Your task to perform on an android device: Show the shopping cart on bestbuy.com. Add razer blackwidow to the cart on bestbuy.com Image 0: 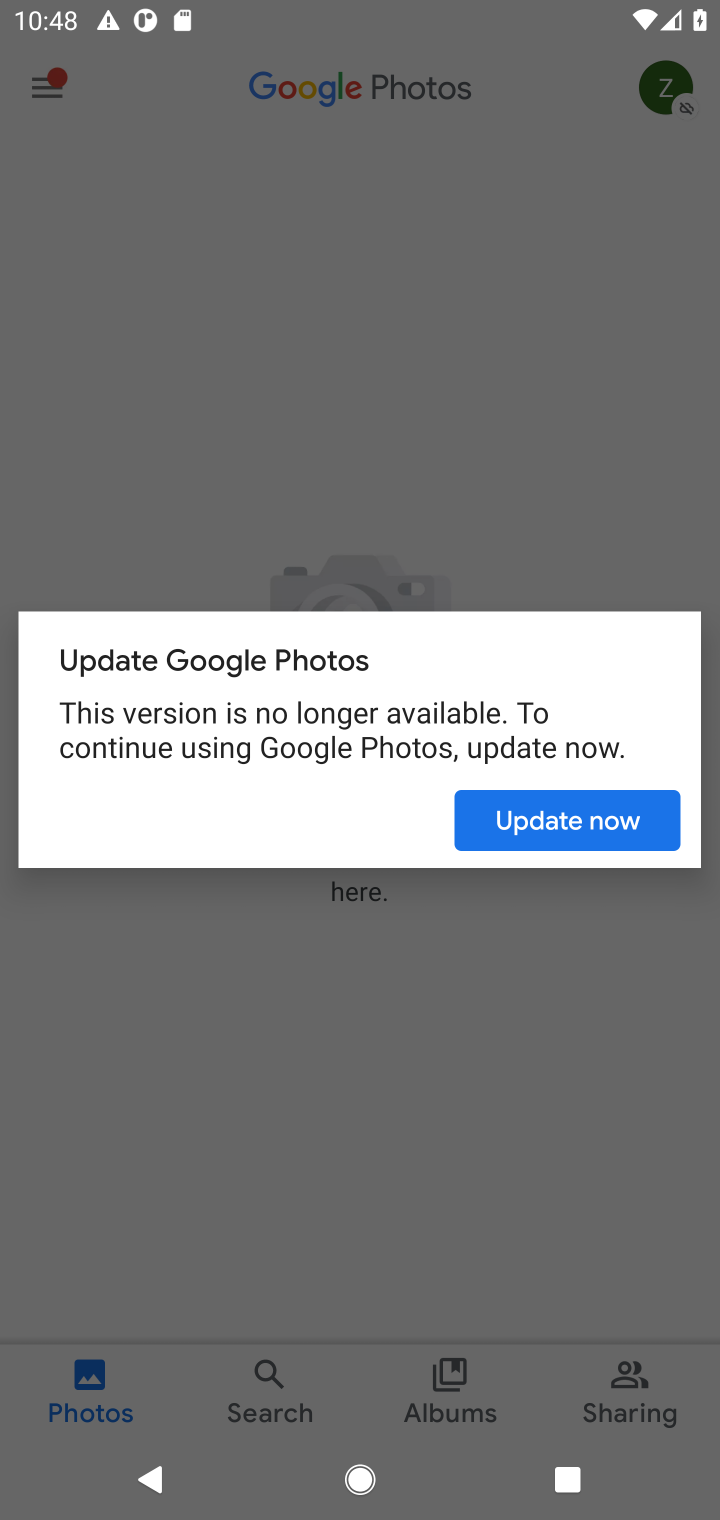
Step 0: press home button
Your task to perform on an android device: Show the shopping cart on bestbuy.com. Add razer blackwidow to the cart on bestbuy.com Image 1: 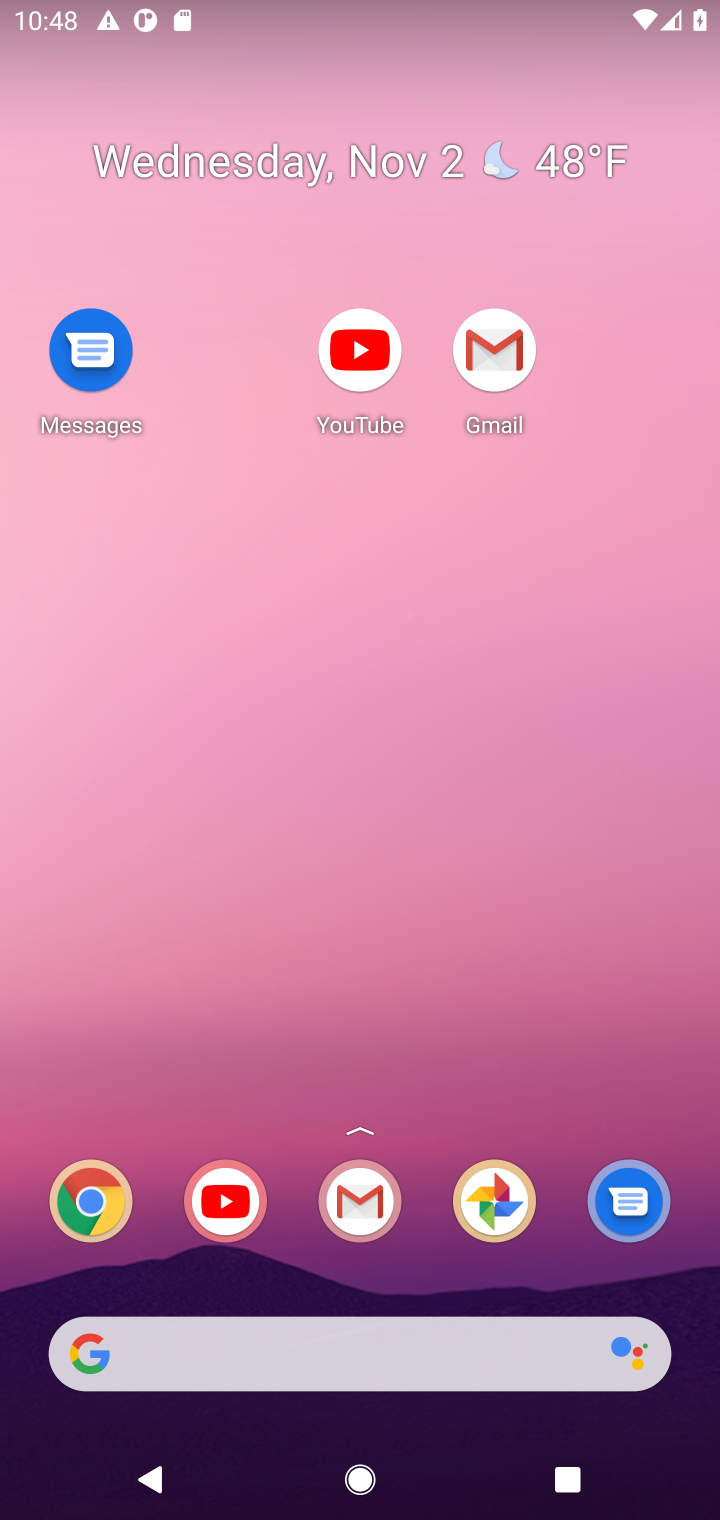
Step 1: drag from (417, 1268) to (355, 187)
Your task to perform on an android device: Show the shopping cart on bestbuy.com. Add razer blackwidow to the cart on bestbuy.com Image 2: 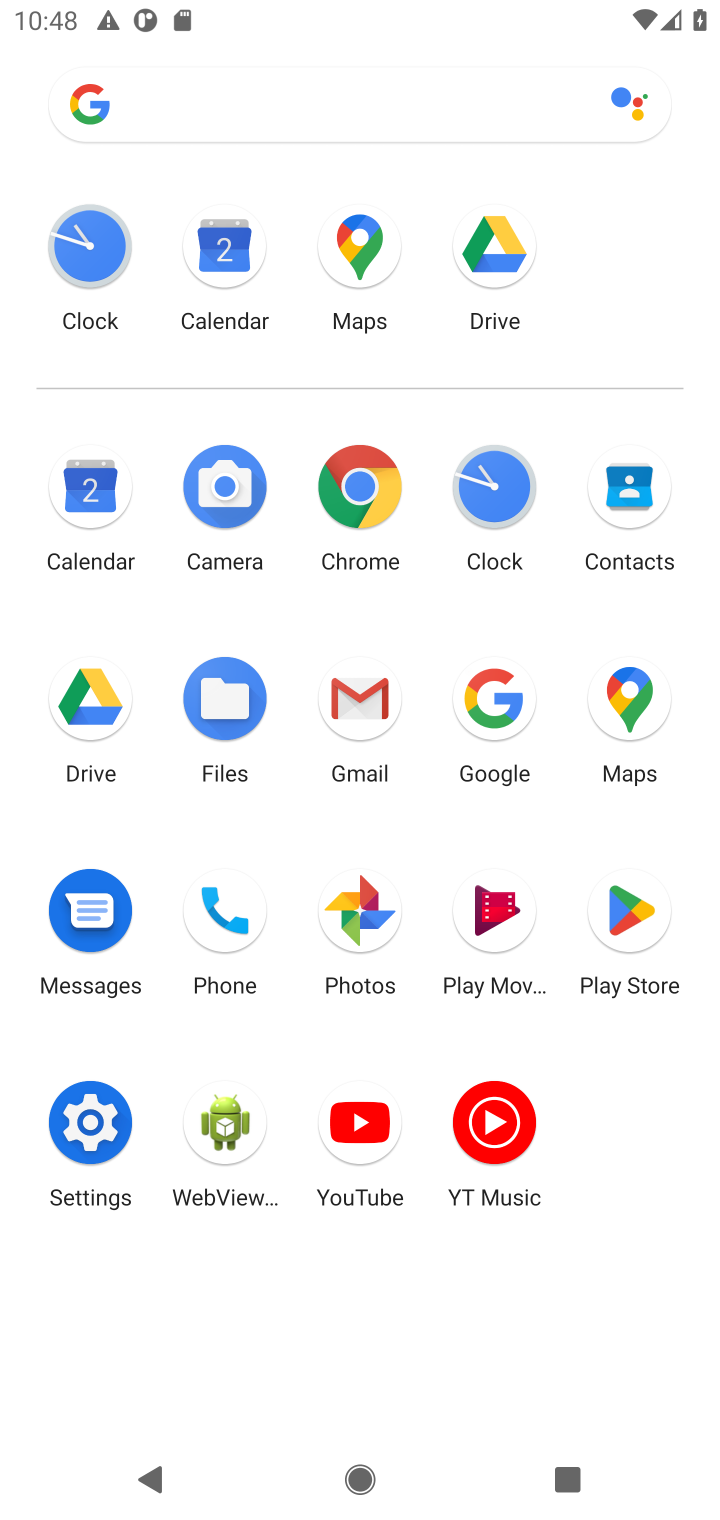
Step 2: click (359, 480)
Your task to perform on an android device: Show the shopping cart on bestbuy.com. Add razer blackwidow to the cart on bestbuy.com Image 3: 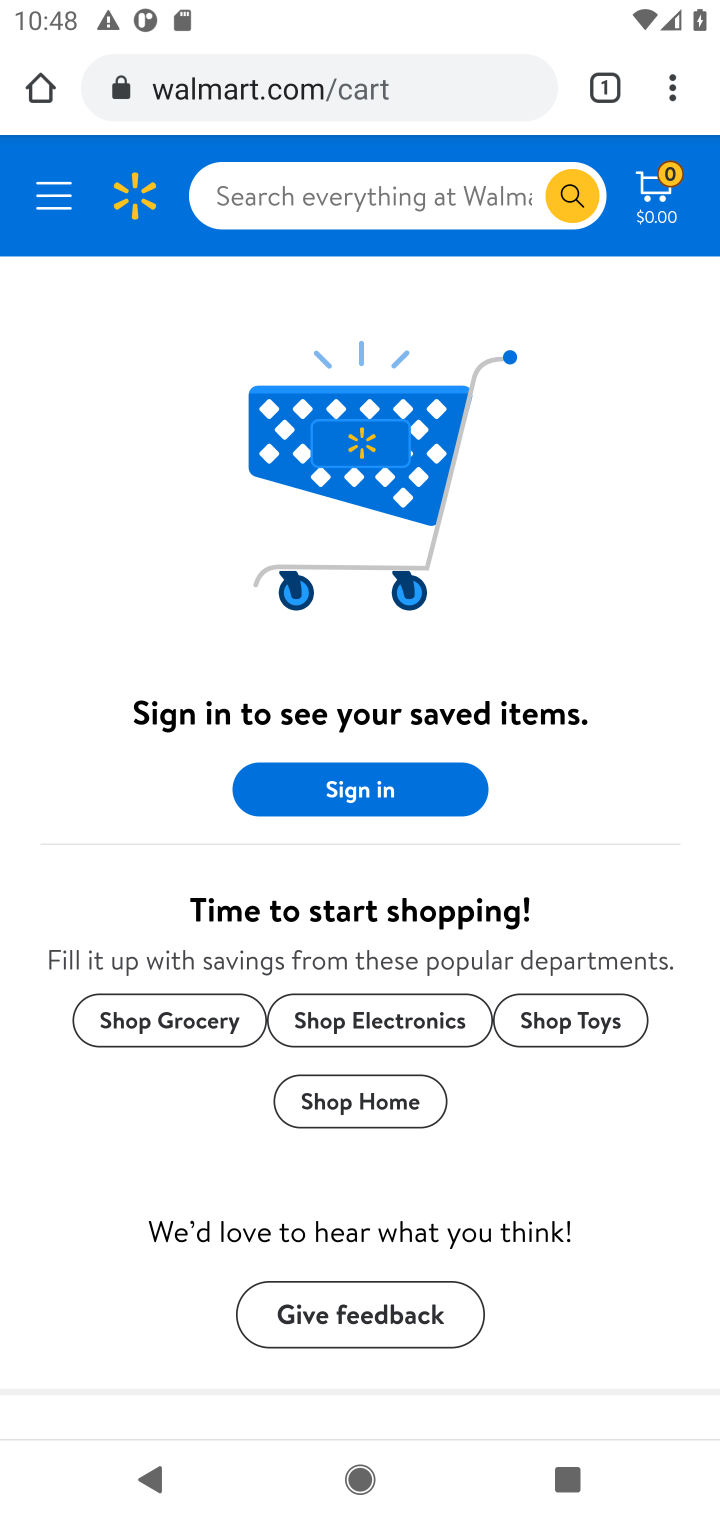
Step 3: click (380, 101)
Your task to perform on an android device: Show the shopping cart on bestbuy.com. Add razer blackwidow to the cart on bestbuy.com Image 4: 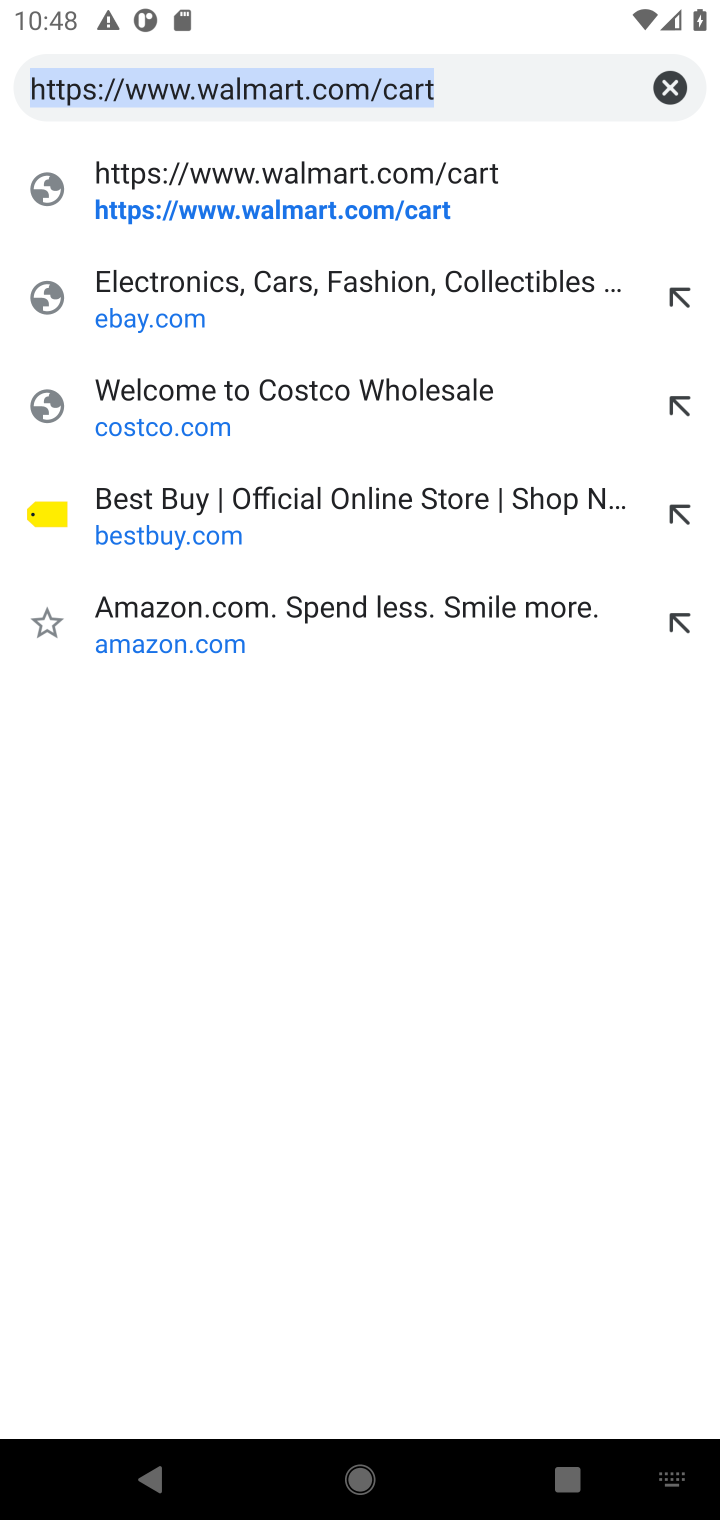
Step 4: type "bestbuy.com"
Your task to perform on an android device: Show the shopping cart on bestbuy.com. Add razer blackwidow to the cart on bestbuy.com Image 5: 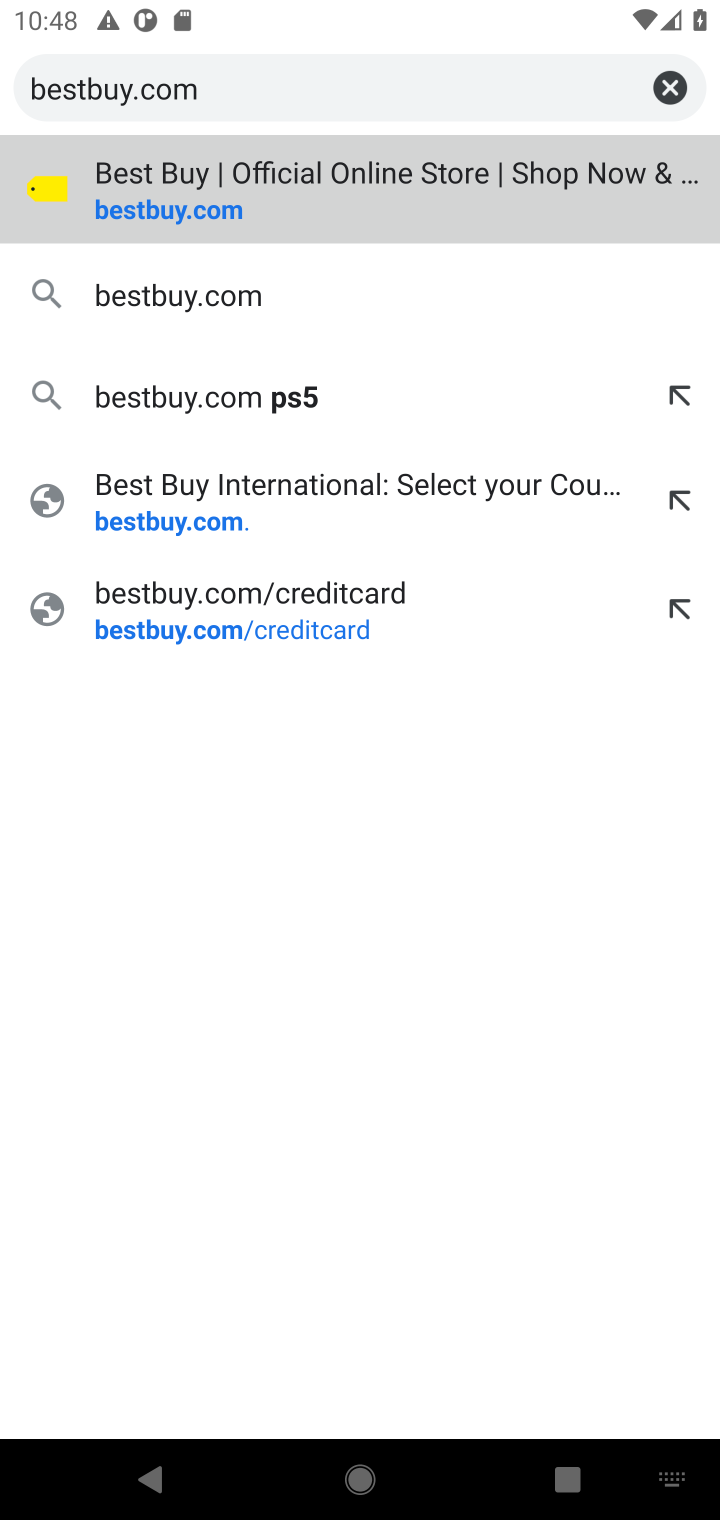
Step 5: press enter
Your task to perform on an android device: Show the shopping cart on bestbuy.com. Add razer blackwidow to the cart on bestbuy.com Image 6: 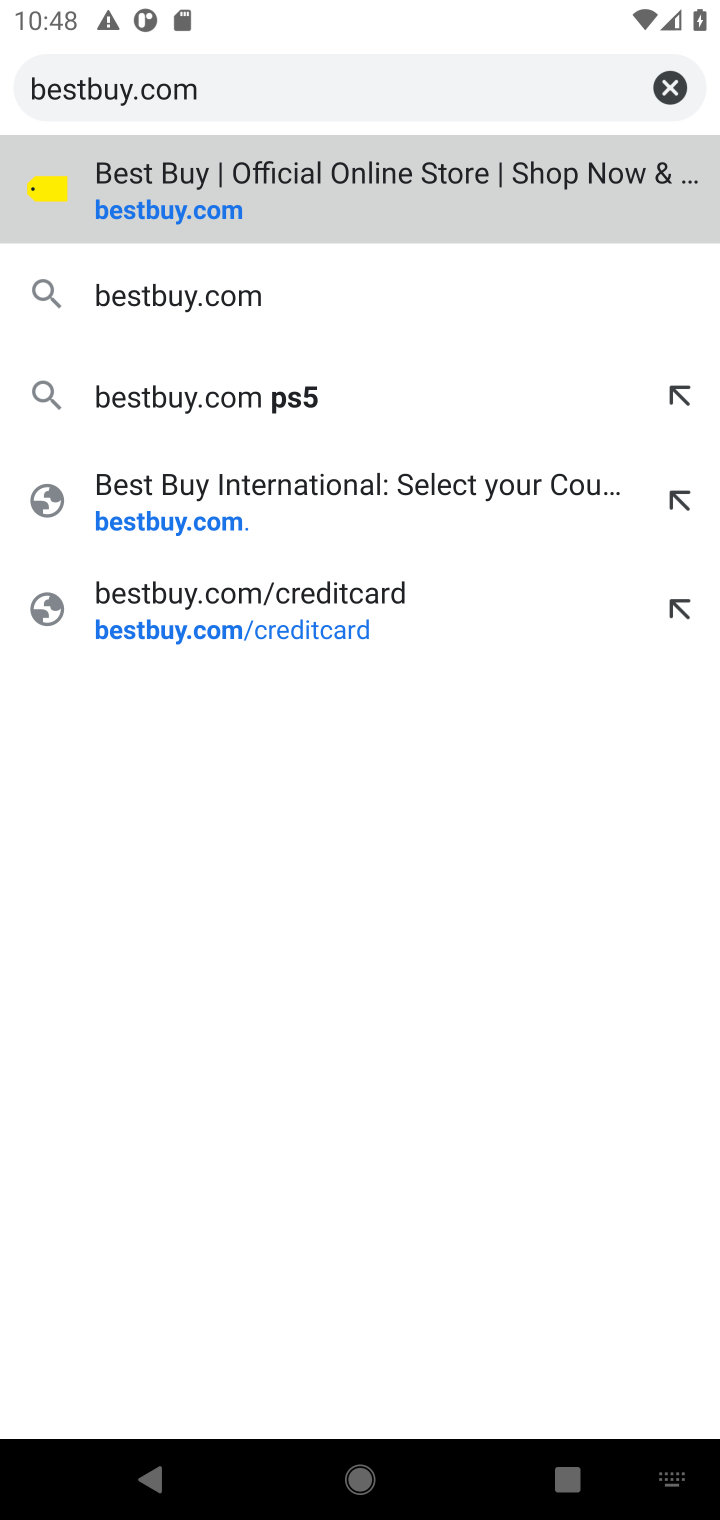
Step 6: type "xxxzc"
Your task to perform on an android device: Show the shopping cart on bestbuy.com. Add razer blackwidow to the cart on bestbuy.com Image 7: 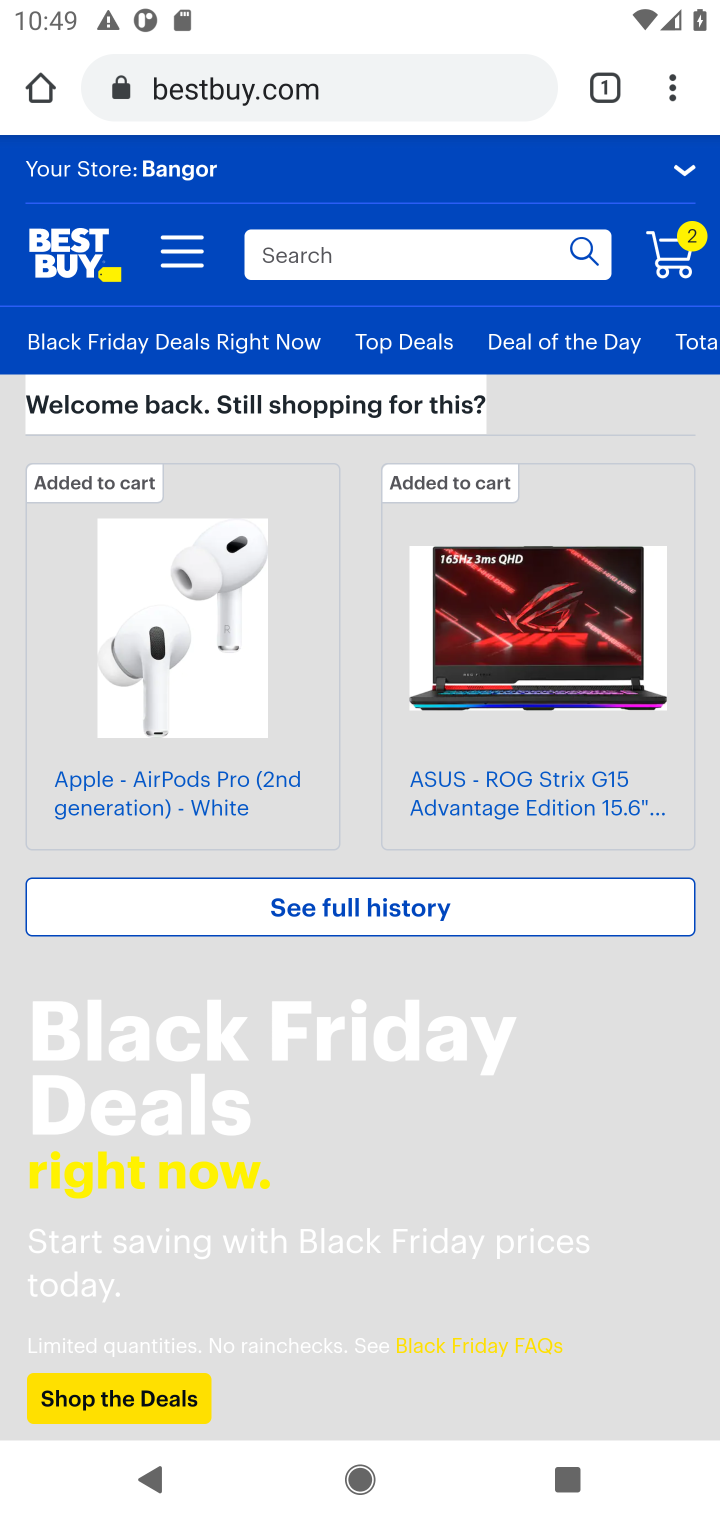
Step 7: click (680, 243)
Your task to perform on an android device: Show the shopping cart on bestbuy.com. Add razer blackwidow to the cart on bestbuy.com Image 8: 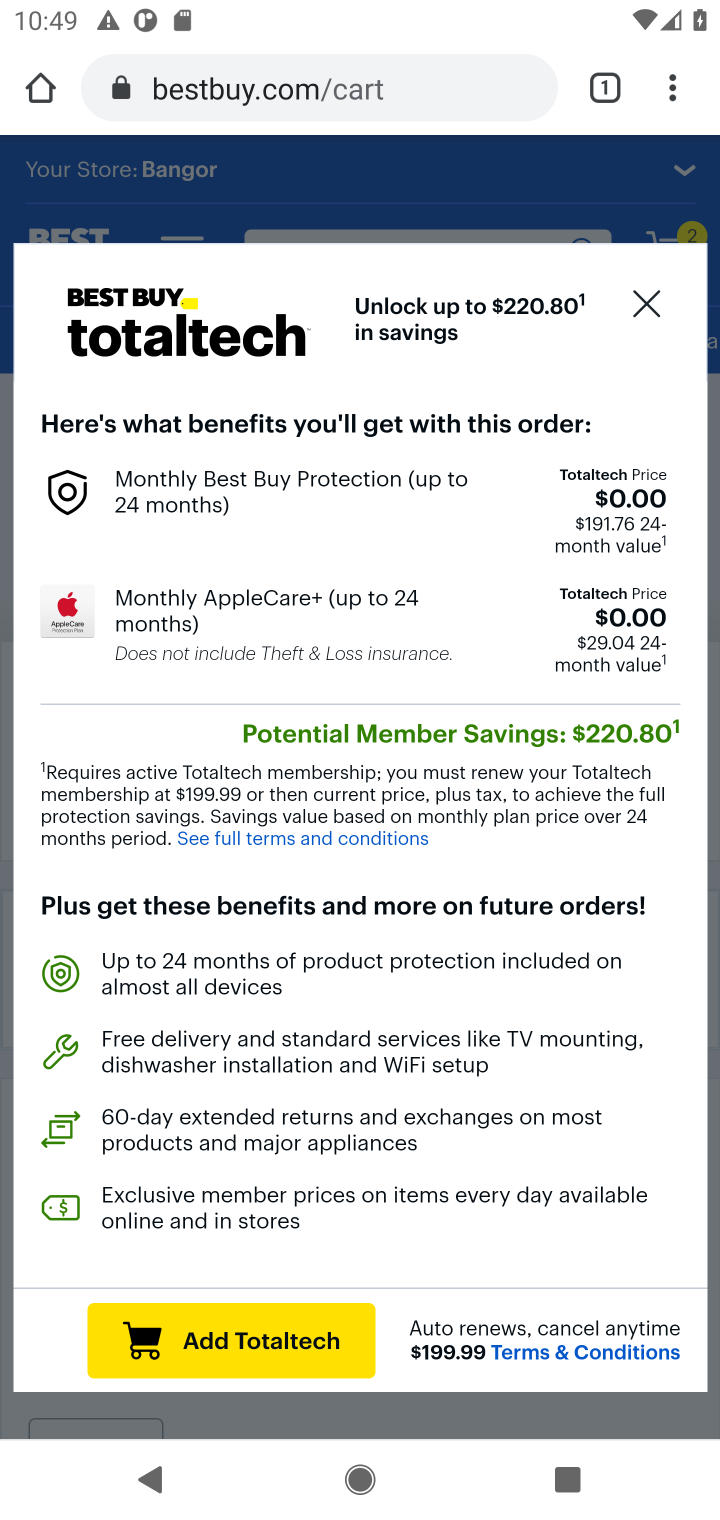
Step 8: click (647, 300)
Your task to perform on an android device: Show the shopping cart on bestbuy.com. Add razer blackwidow to the cart on bestbuy.com Image 9: 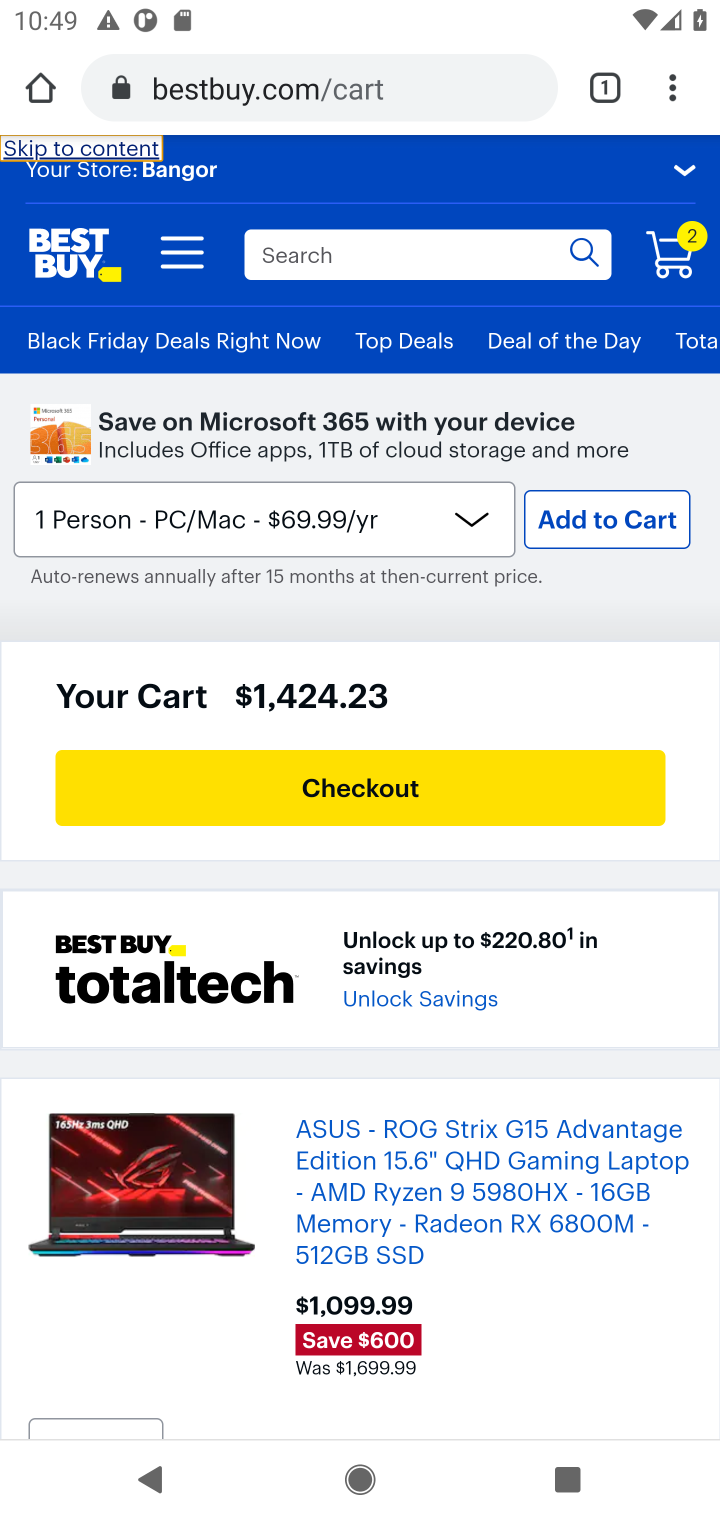
Step 9: click (423, 261)
Your task to perform on an android device: Show the shopping cart on bestbuy.com. Add razer blackwidow to the cart on bestbuy.com Image 10: 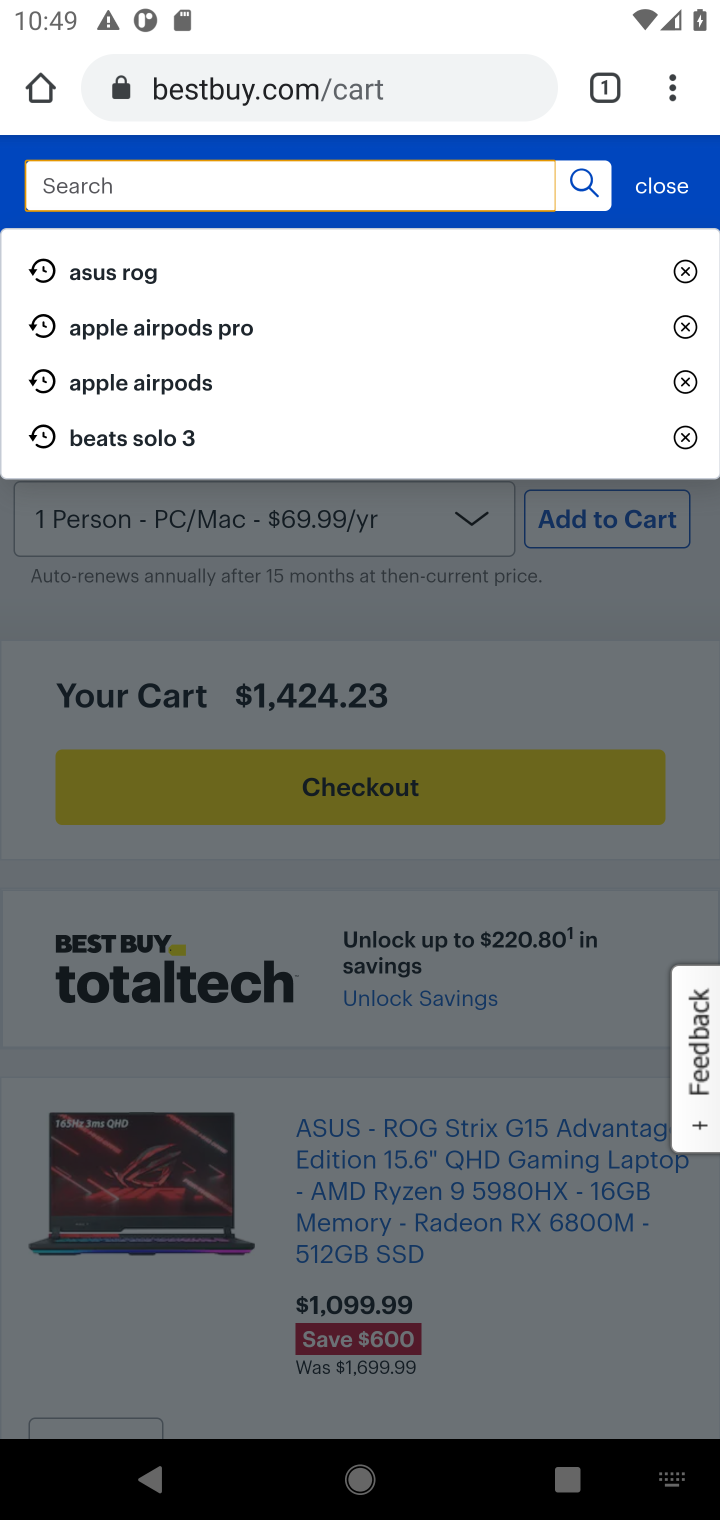
Step 10: type "razer blackwidow"
Your task to perform on an android device: Show the shopping cart on bestbuy.com. Add razer blackwidow to the cart on bestbuy.com Image 11: 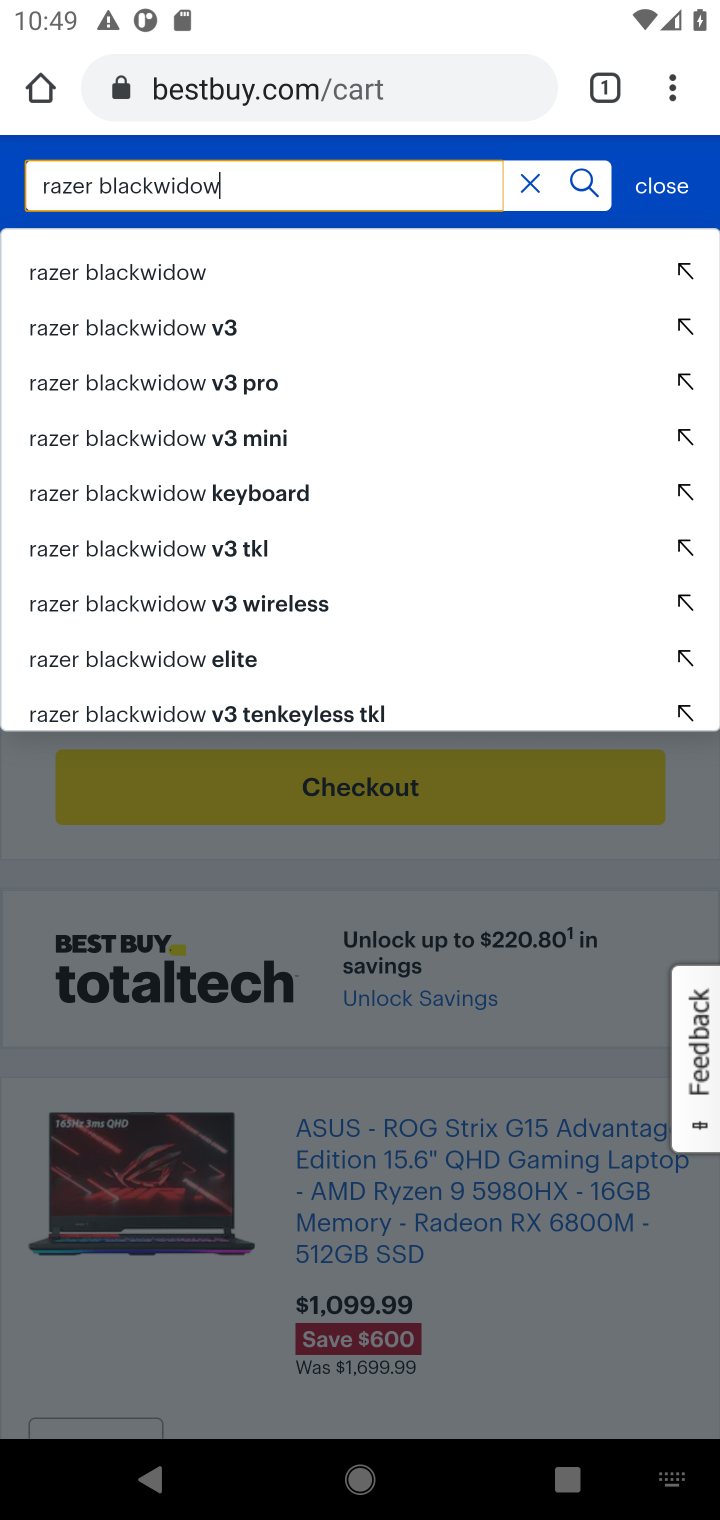
Step 11: press enter
Your task to perform on an android device: Show the shopping cart on bestbuy.com. Add razer blackwidow to the cart on bestbuy.com Image 12: 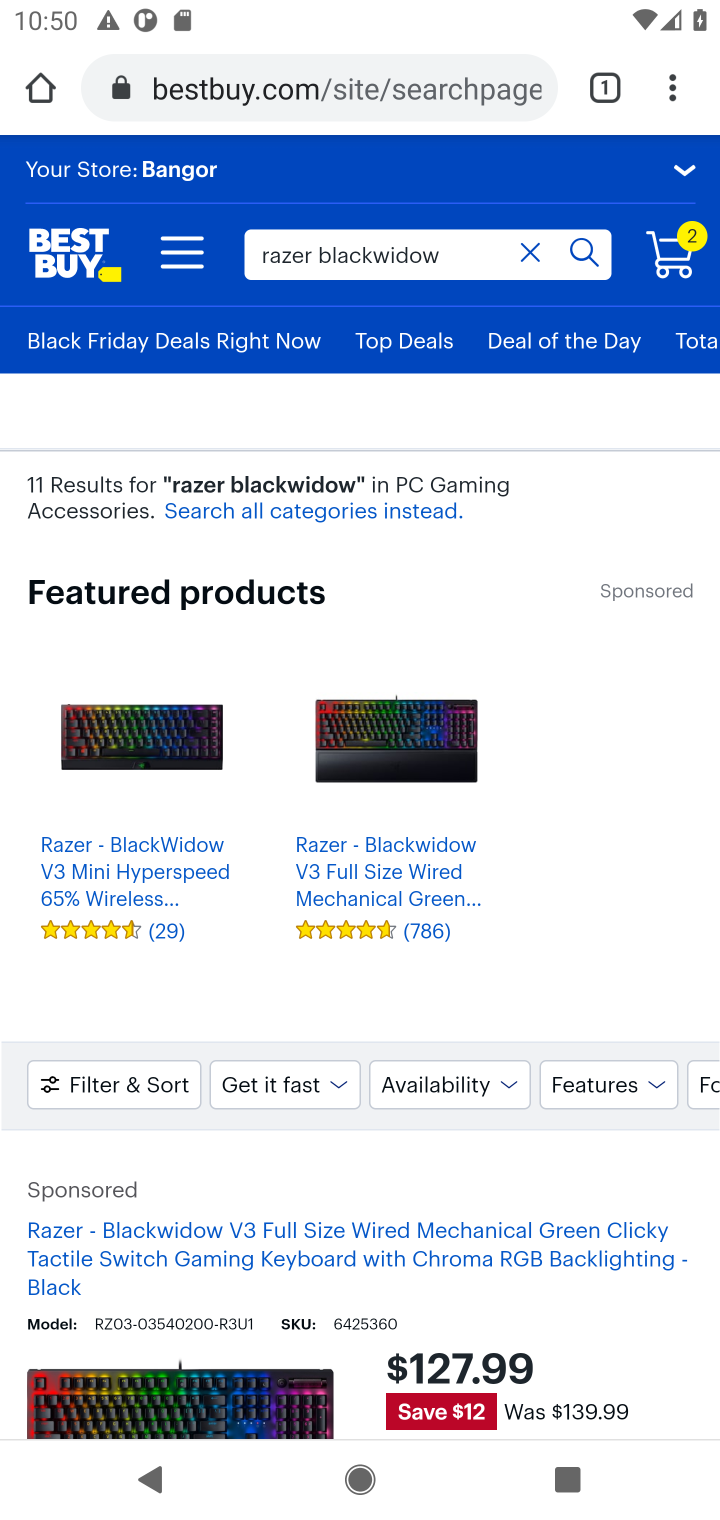
Step 12: drag from (462, 1217) to (504, 378)
Your task to perform on an android device: Show the shopping cart on bestbuy.com. Add razer blackwidow to the cart on bestbuy.com Image 13: 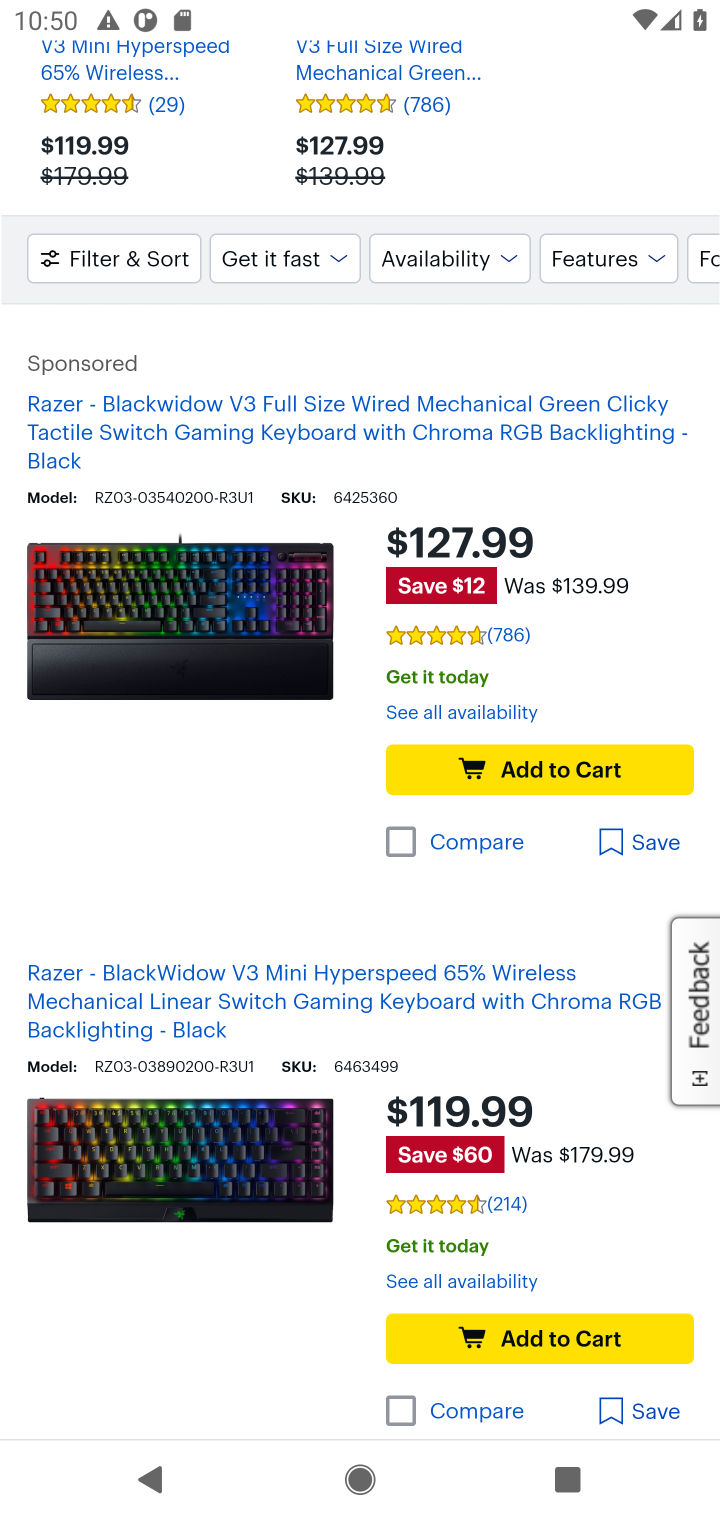
Step 13: click (164, 988)
Your task to perform on an android device: Show the shopping cart on bestbuy.com. Add razer blackwidow to the cart on bestbuy.com Image 14: 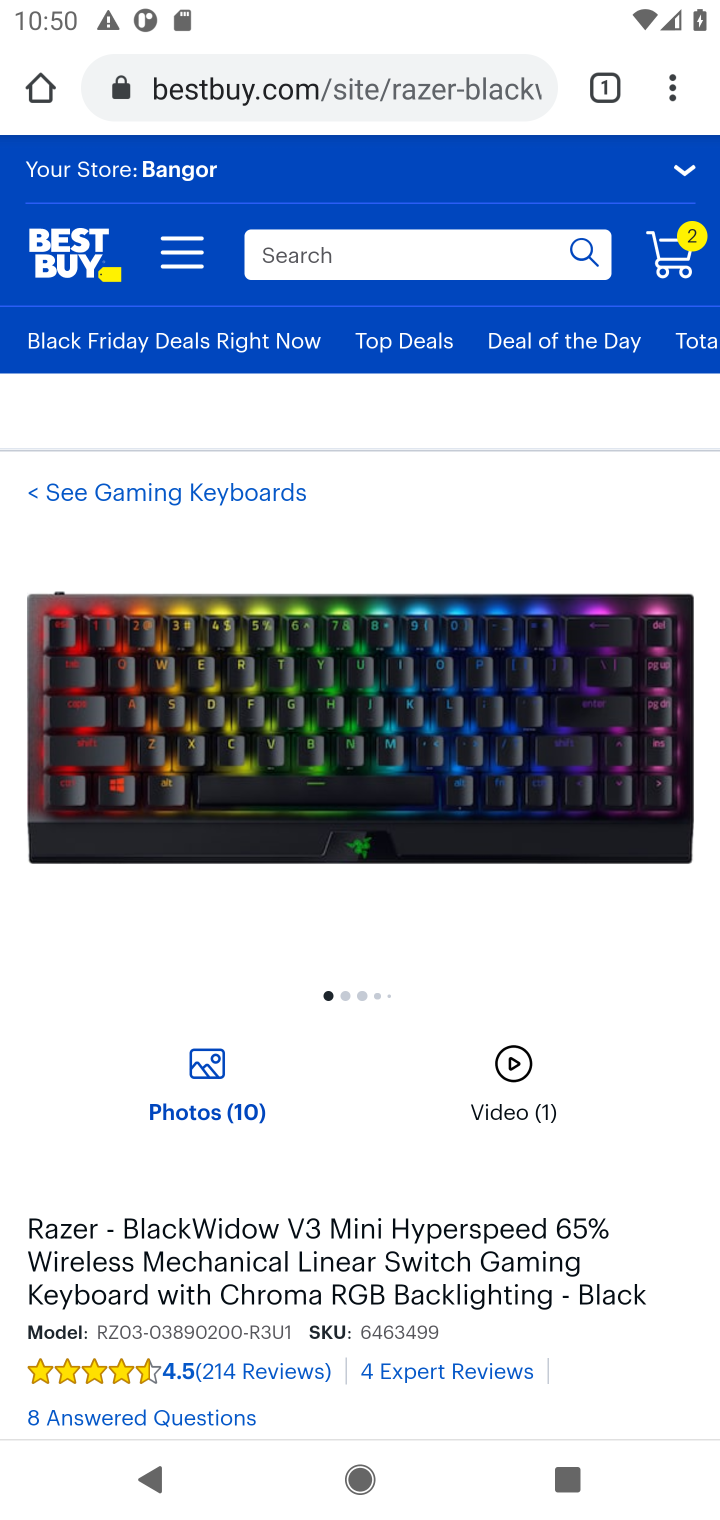
Step 14: drag from (333, 1338) to (297, 703)
Your task to perform on an android device: Show the shopping cart on bestbuy.com. Add razer blackwidow to the cart on bestbuy.com Image 15: 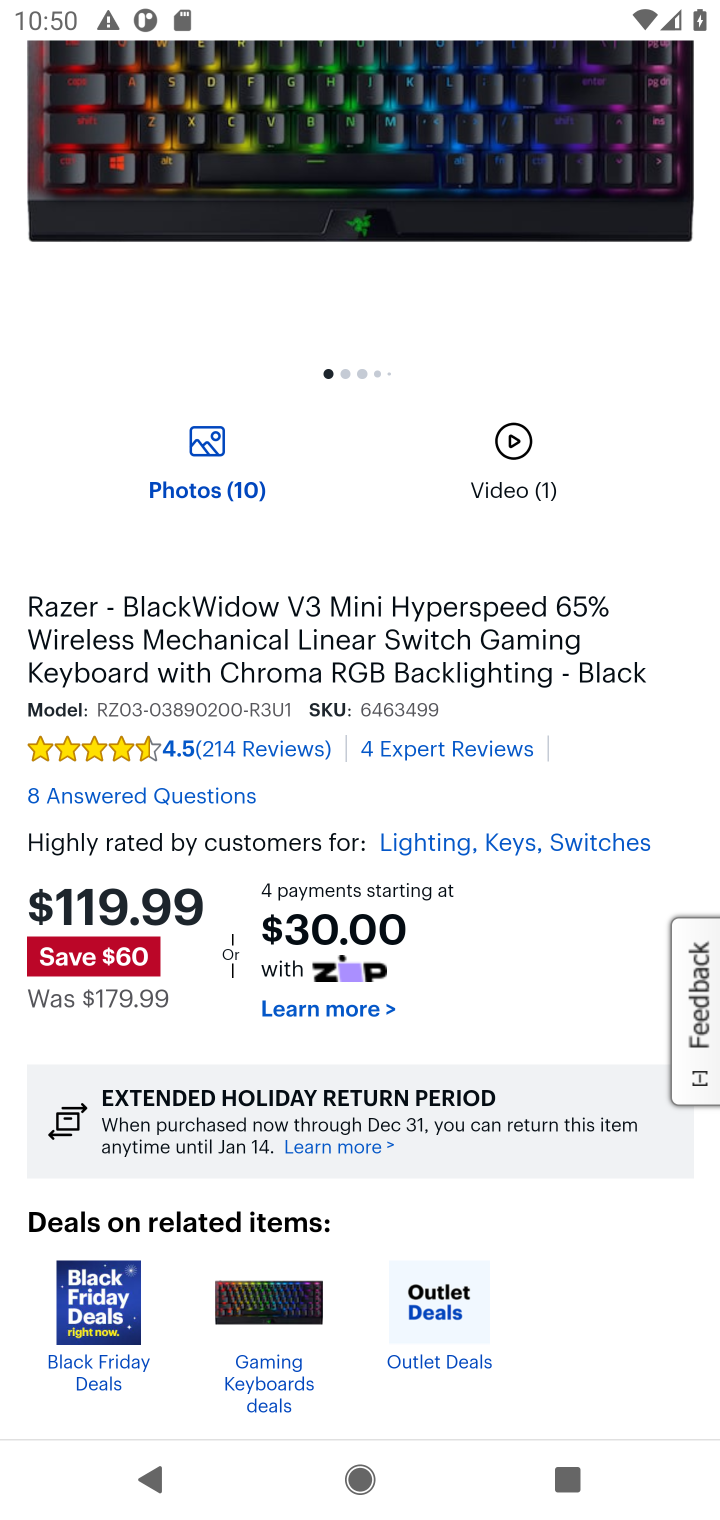
Step 15: drag from (405, 1128) to (449, 610)
Your task to perform on an android device: Show the shopping cart on bestbuy.com. Add razer blackwidow to the cart on bestbuy.com Image 16: 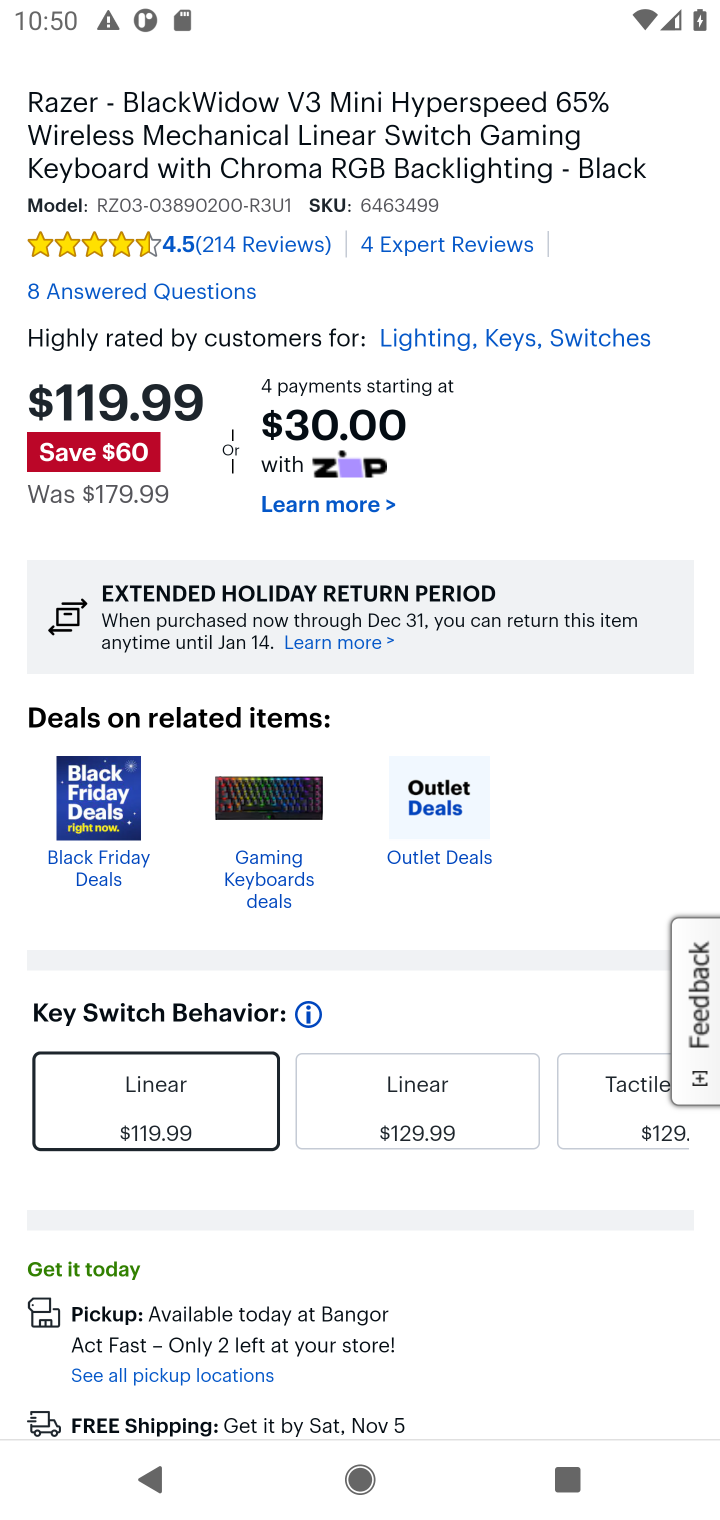
Step 16: drag from (397, 1268) to (399, 384)
Your task to perform on an android device: Show the shopping cart on bestbuy.com. Add razer blackwidow to the cart on bestbuy.com Image 17: 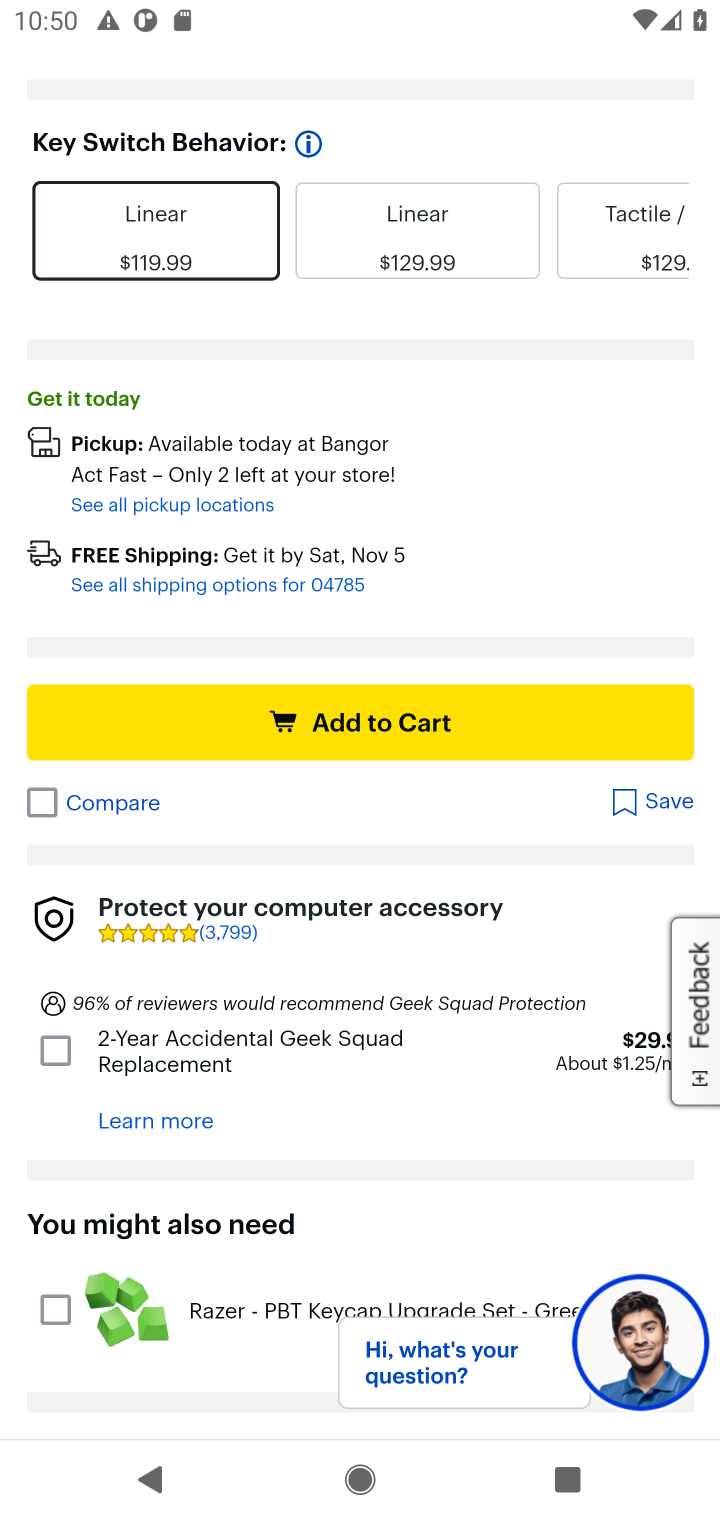
Step 17: click (431, 730)
Your task to perform on an android device: Show the shopping cart on bestbuy.com. Add razer blackwidow to the cart on bestbuy.com Image 18: 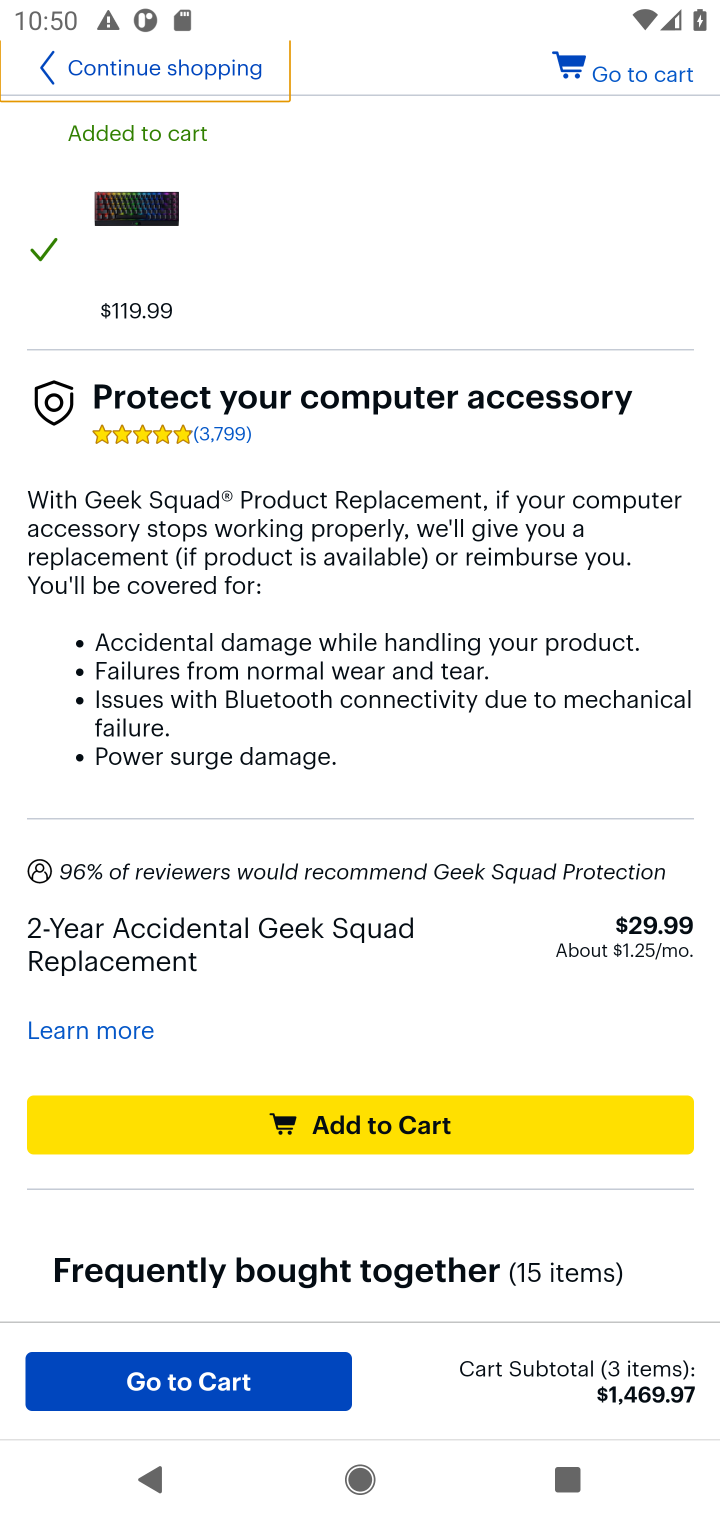
Step 18: task complete